Your task to perform on an android device: toggle javascript in the chrome app Image 0: 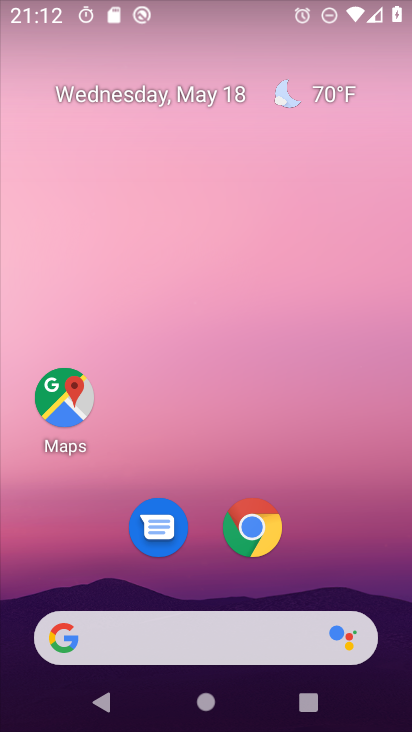
Step 0: click (379, 289)
Your task to perform on an android device: toggle javascript in the chrome app Image 1: 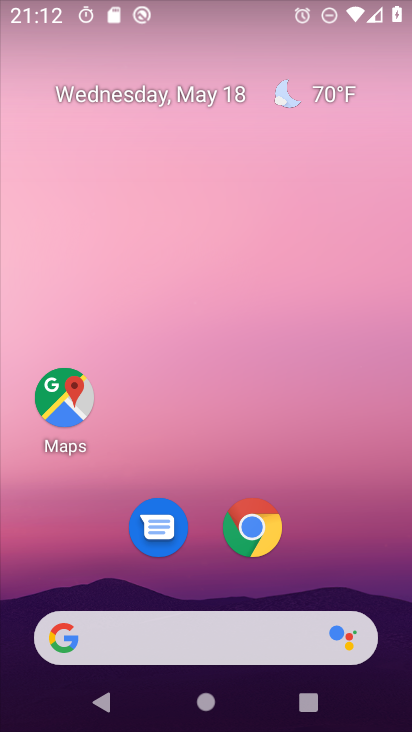
Step 1: click (268, 525)
Your task to perform on an android device: toggle javascript in the chrome app Image 2: 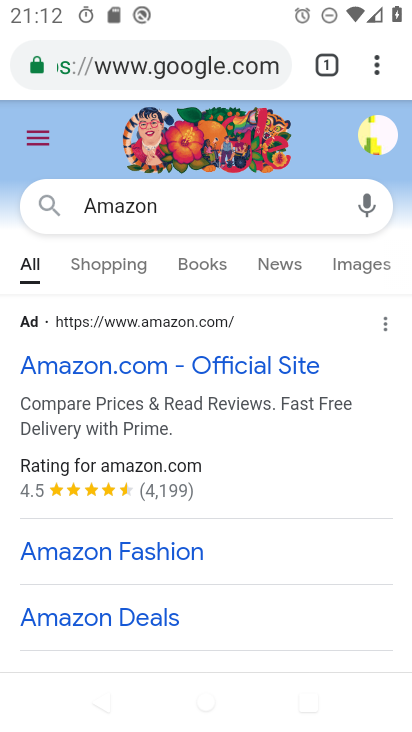
Step 2: click (373, 68)
Your task to perform on an android device: toggle javascript in the chrome app Image 3: 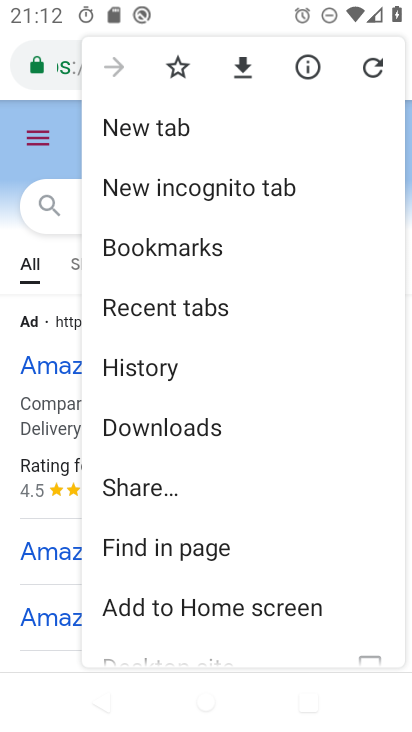
Step 3: drag from (288, 568) to (287, 369)
Your task to perform on an android device: toggle javascript in the chrome app Image 4: 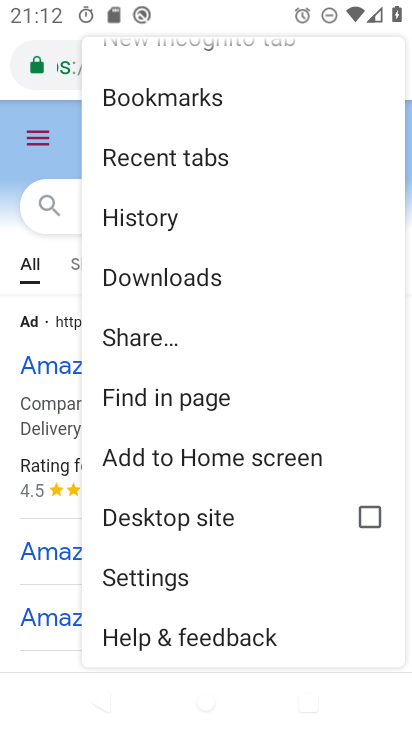
Step 4: click (159, 572)
Your task to perform on an android device: toggle javascript in the chrome app Image 5: 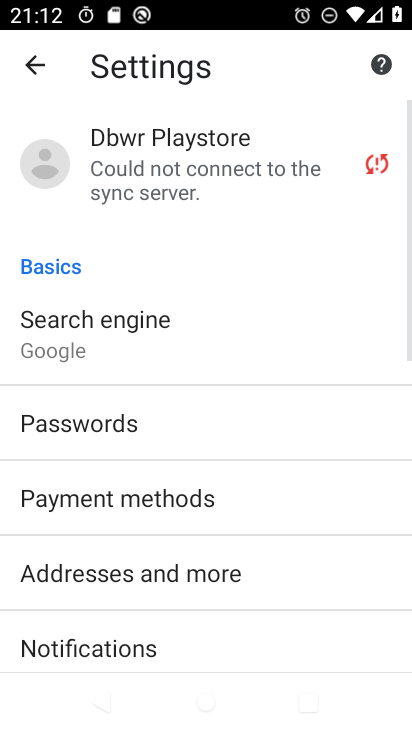
Step 5: drag from (305, 631) to (290, 363)
Your task to perform on an android device: toggle javascript in the chrome app Image 6: 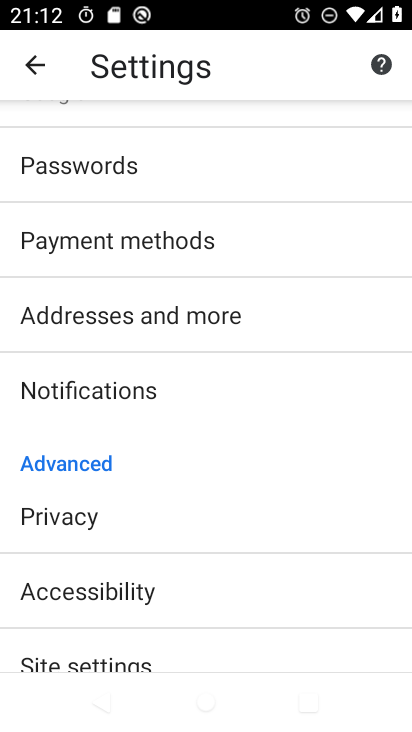
Step 6: drag from (261, 634) to (263, 453)
Your task to perform on an android device: toggle javascript in the chrome app Image 7: 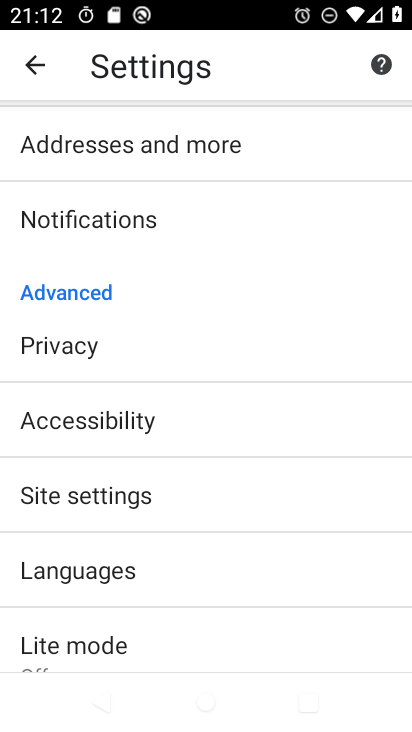
Step 7: click (84, 493)
Your task to perform on an android device: toggle javascript in the chrome app Image 8: 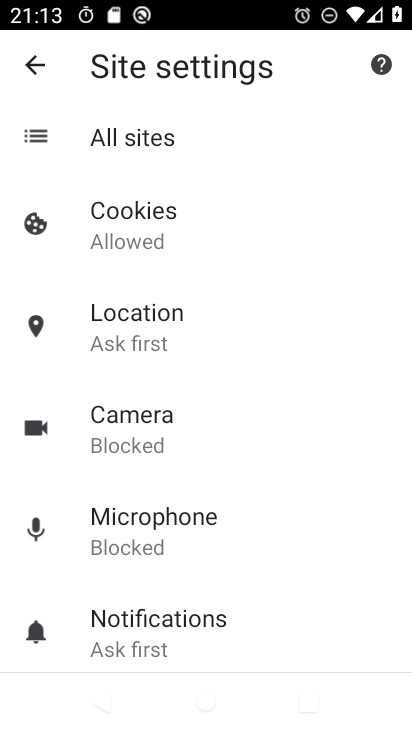
Step 8: drag from (314, 574) to (305, 418)
Your task to perform on an android device: toggle javascript in the chrome app Image 9: 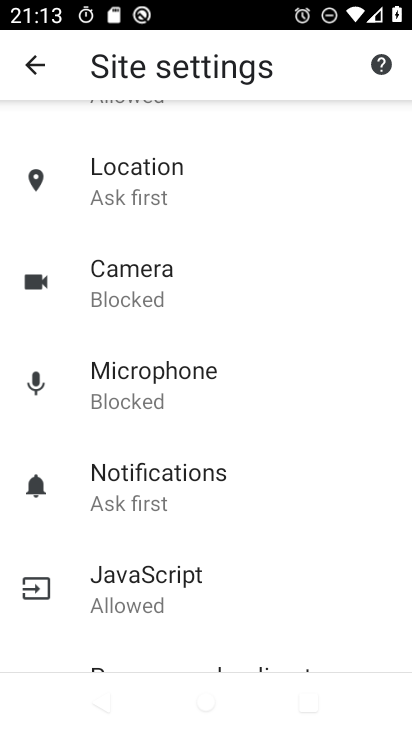
Step 9: drag from (263, 588) to (288, 324)
Your task to perform on an android device: toggle javascript in the chrome app Image 10: 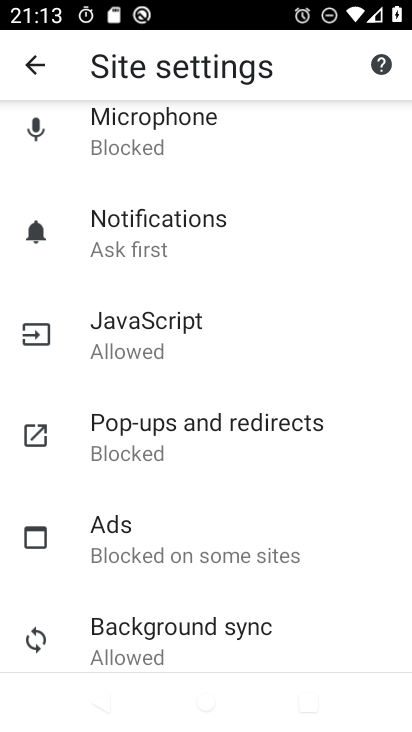
Step 10: click (143, 329)
Your task to perform on an android device: toggle javascript in the chrome app Image 11: 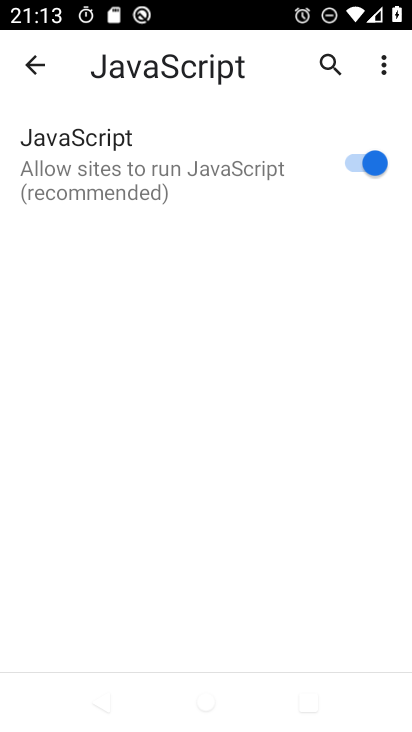
Step 11: click (351, 163)
Your task to perform on an android device: toggle javascript in the chrome app Image 12: 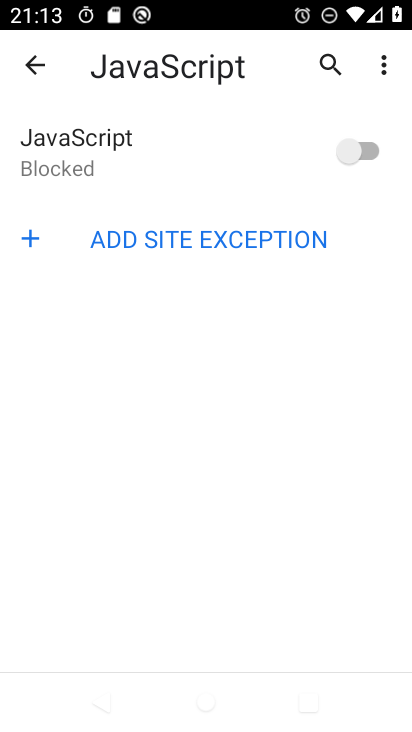
Step 12: task complete